Your task to perform on an android device: find photos in the google photos app Image 0: 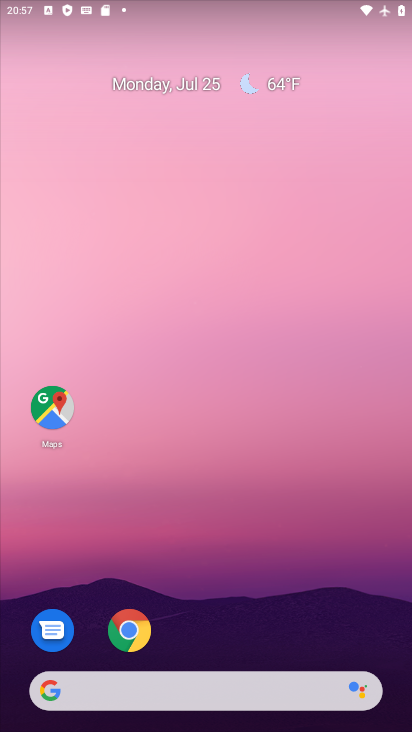
Step 0: drag from (391, 646) to (336, 156)
Your task to perform on an android device: find photos in the google photos app Image 1: 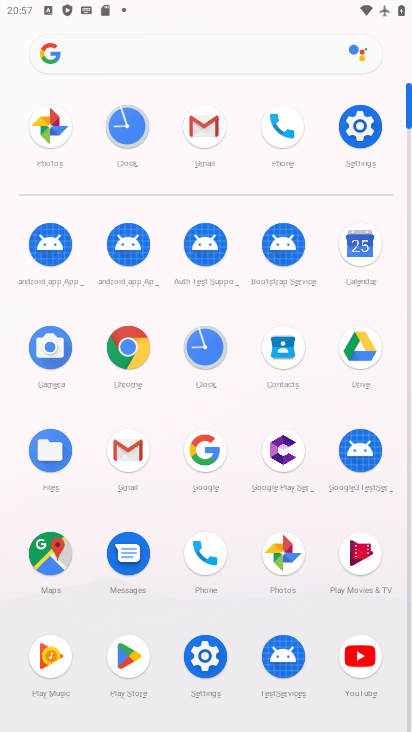
Step 1: click (285, 553)
Your task to perform on an android device: find photos in the google photos app Image 2: 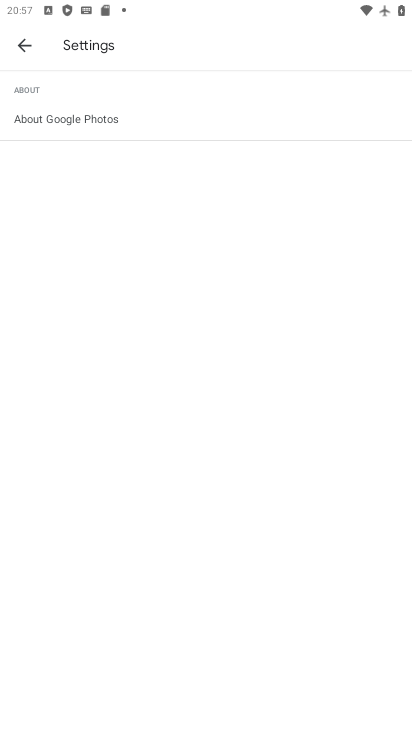
Step 2: task complete